Your task to perform on an android device: What's the weather today? Image 0: 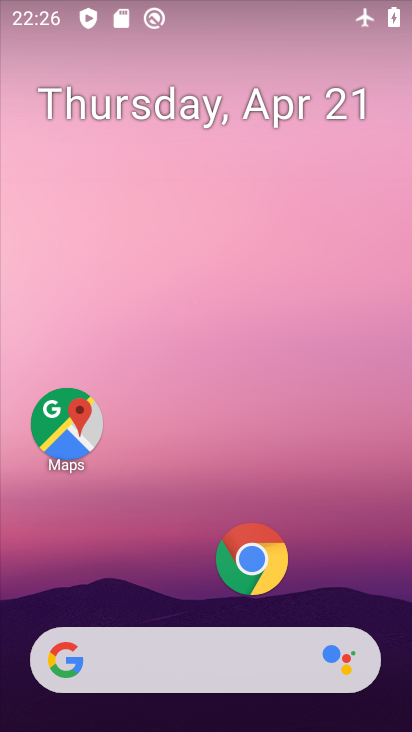
Step 0: click (254, 562)
Your task to perform on an android device: What's the weather today? Image 1: 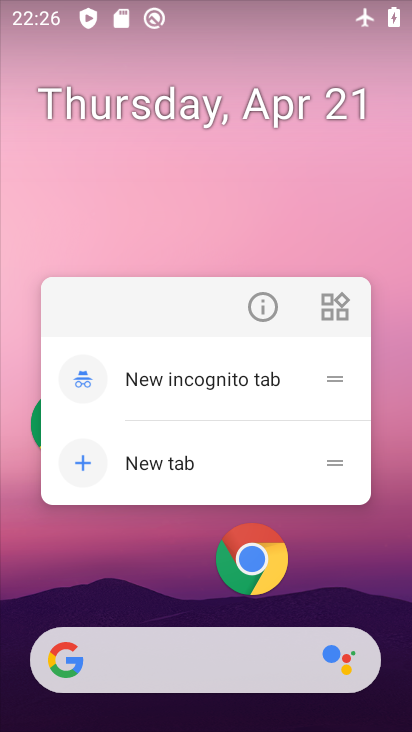
Step 1: click (273, 305)
Your task to perform on an android device: What's the weather today? Image 2: 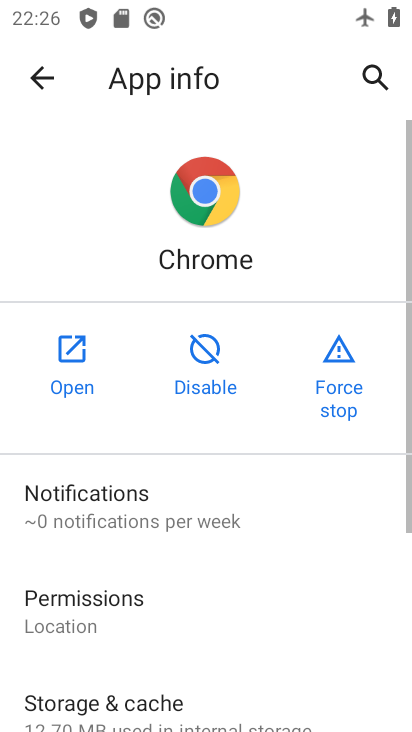
Step 2: click (80, 370)
Your task to perform on an android device: What's the weather today? Image 3: 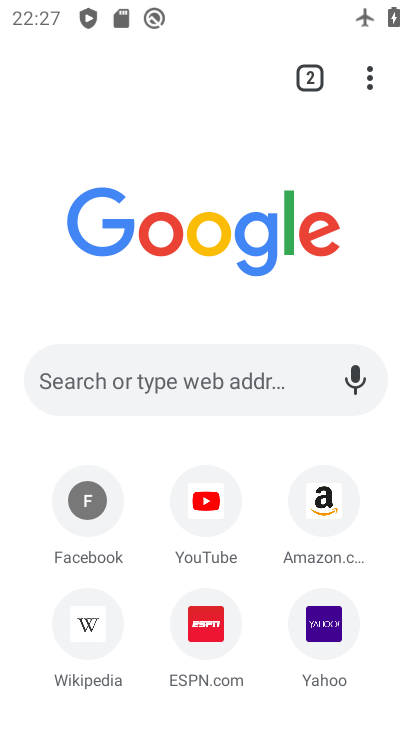
Step 3: click (162, 388)
Your task to perform on an android device: What's the weather today? Image 4: 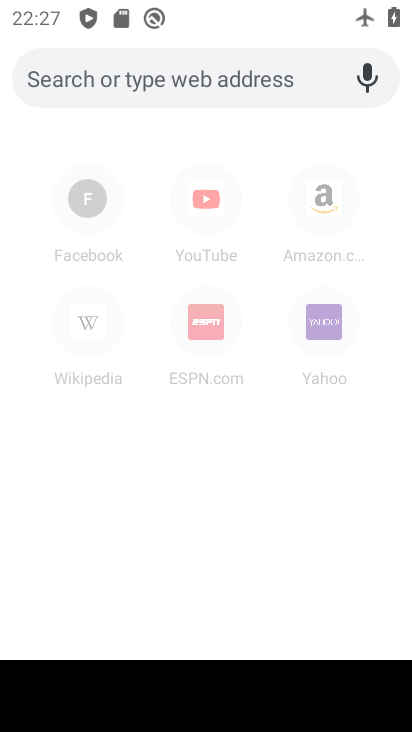
Step 4: type "today weather"
Your task to perform on an android device: What's the weather today? Image 5: 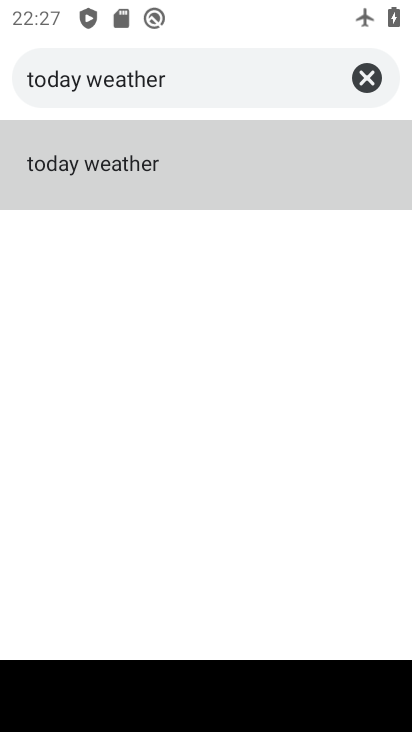
Step 5: click (140, 175)
Your task to perform on an android device: What's the weather today? Image 6: 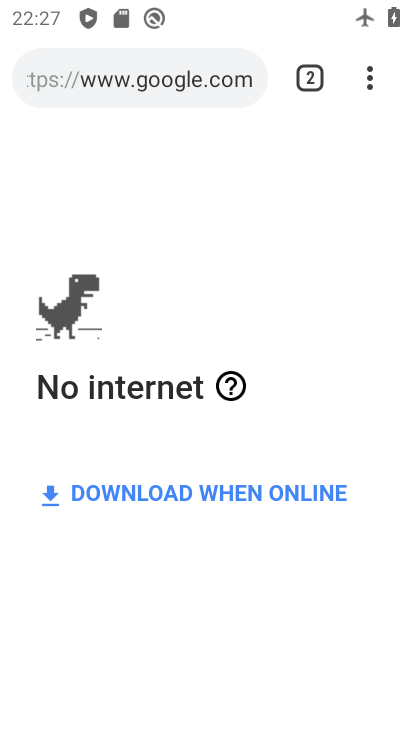
Step 6: task complete